Your task to perform on an android device: Go to Google maps Image 0: 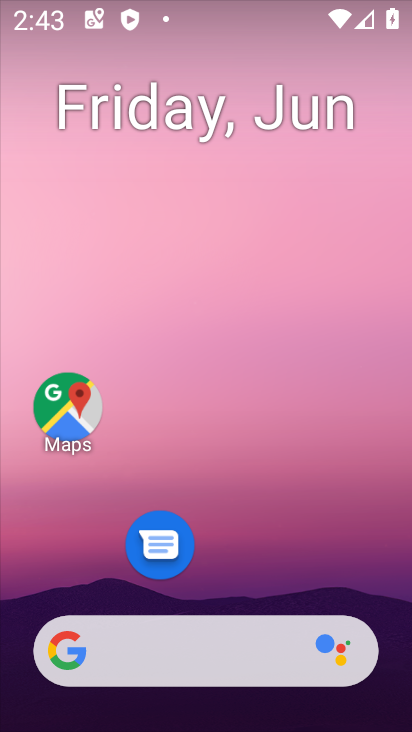
Step 0: click (84, 399)
Your task to perform on an android device: Go to Google maps Image 1: 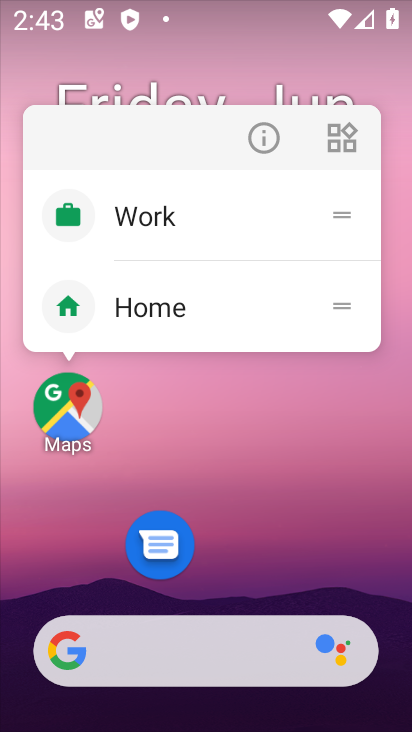
Step 1: click (83, 399)
Your task to perform on an android device: Go to Google maps Image 2: 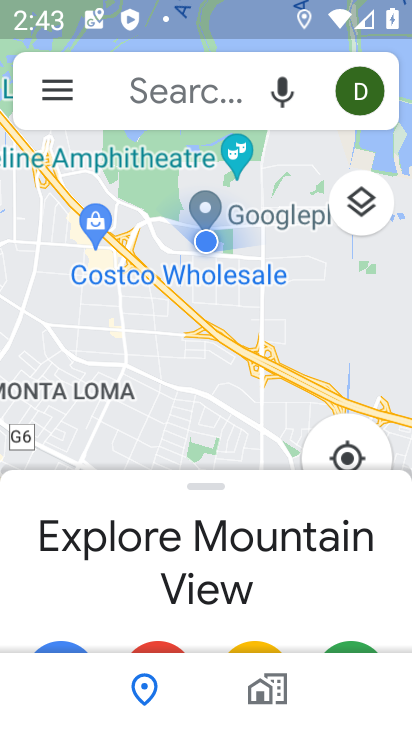
Step 2: task complete